Your task to perform on an android device: What is the recent news? Image 0: 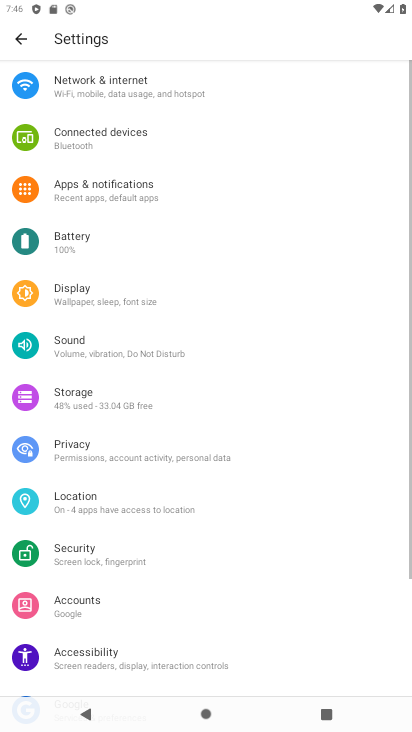
Step 0: press home button
Your task to perform on an android device: What is the recent news? Image 1: 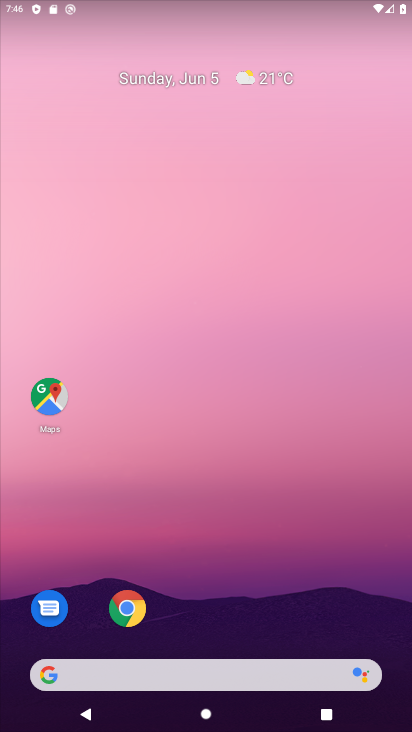
Step 1: click (204, 668)
Your task to perform on an android device: What is the recent news? Image 2: 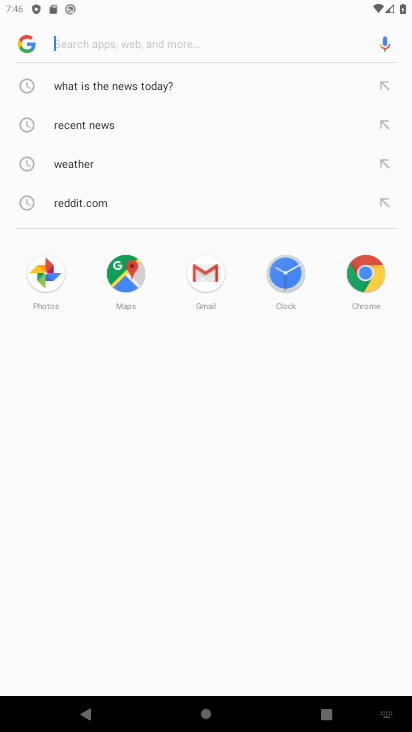
Step 2: type "recent news ?"
Your task to perform on an android device: What is the recent news? Image 3: 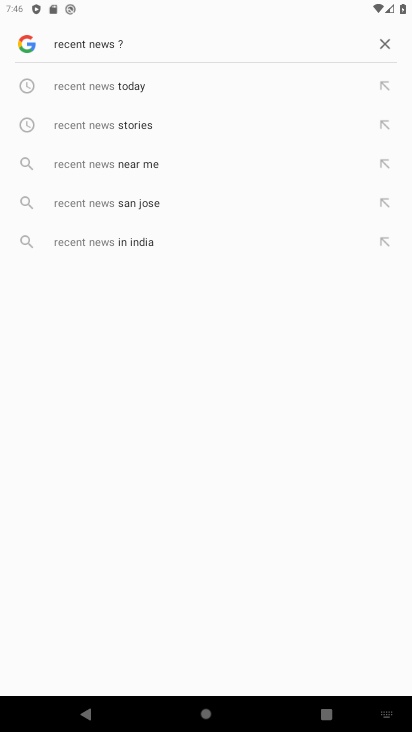
Step 3: click (114, 83)
Your task to perform on an android device: What is the recent news? Image 4: 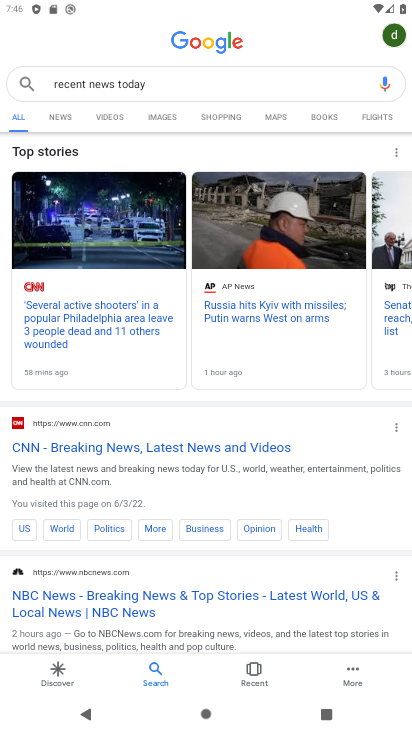
Step 4: task complete